Your task to perform on an android device: What's the weather going to be this weekend? Image 0: 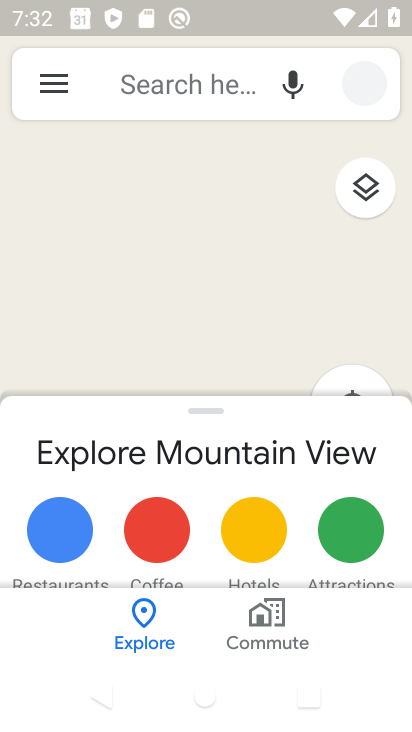
Step 0: press home button
Your task to perform on an android device: What's the weather going to be this weekend? Image 1: 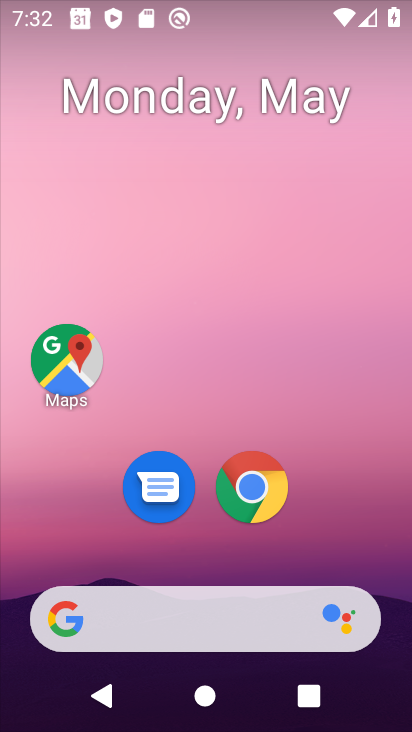
Step 1: drag from (238, 666) to (363, 111)
Your task to perform on an android device: What's the weather going to be this weekend? Image 2: 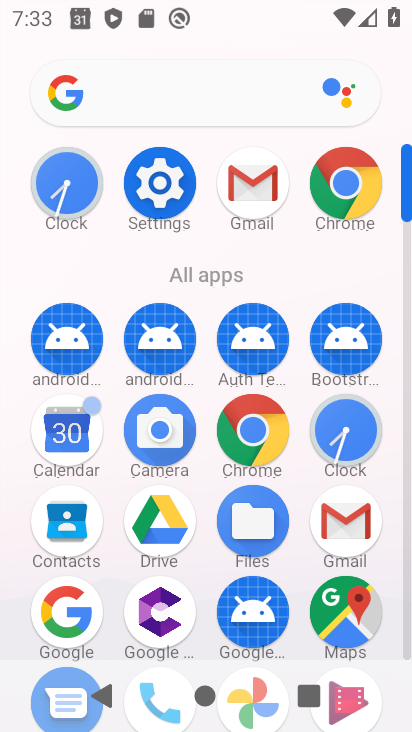
Step 2: click (131, 97)
Your task to perform on an android device: What's the weather going to be this weekend? Image 3: 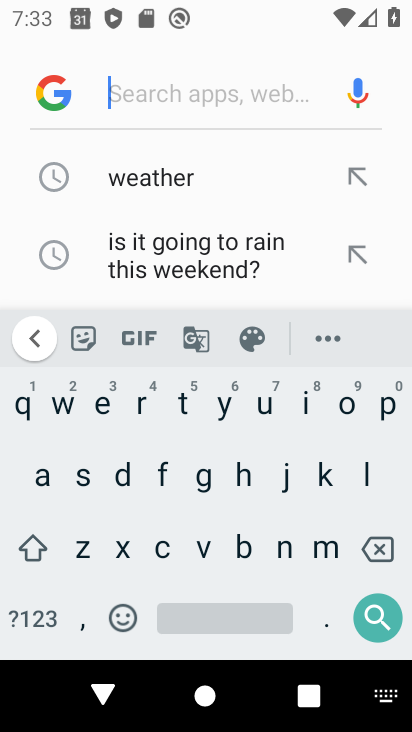
Step 3: click (147, 166)
Your task to perform on an android device: What's the weather going to be this weekend? Image 4: 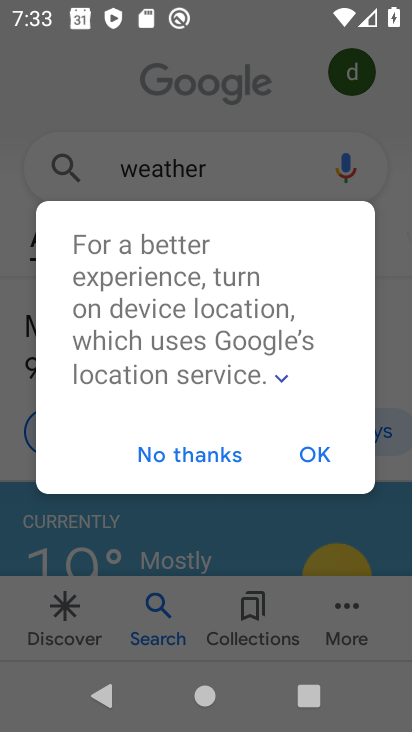
Step 4: click (310, 451)
Your task to perform on an android device: What's the weather going to be this weekend? Image 5: 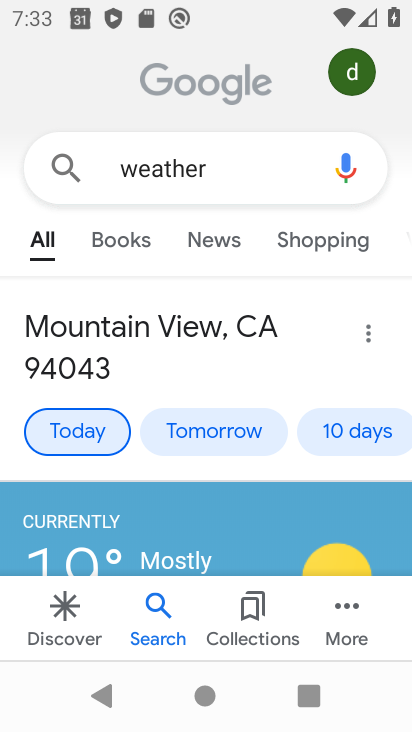
Step 5: click (343, 436)
Your task to perform on an android device: What's the weather going to be this weekend? Image 6: 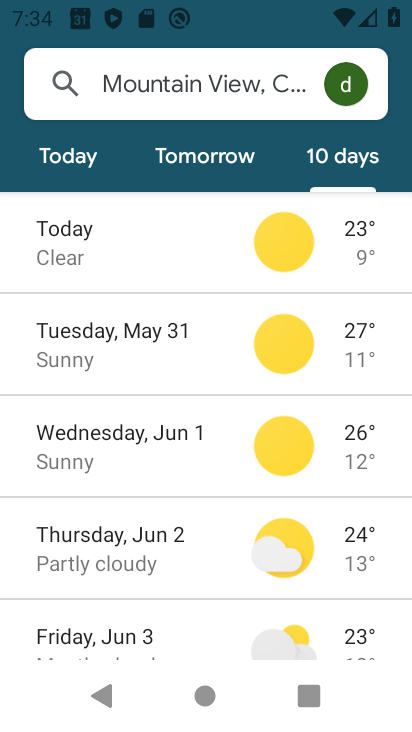
Step 6: task complete